Your task to perform on an android device: open a new tab in the chrome app Image 0: 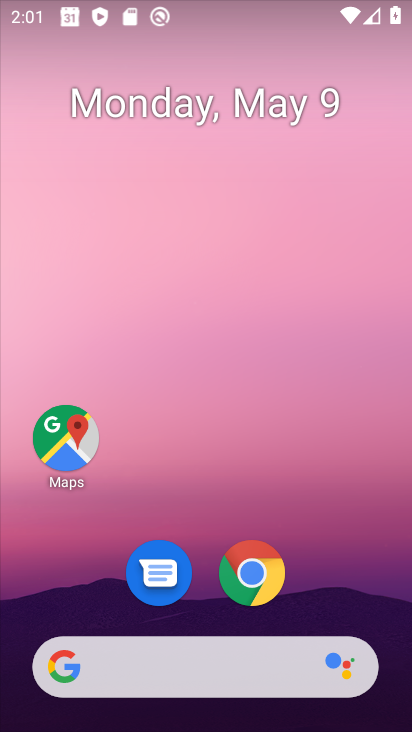
Step 0: drag from (222, 543) to (171, 203)
Your task to perform on an android device: open a new tab in the chrome app Image 1: 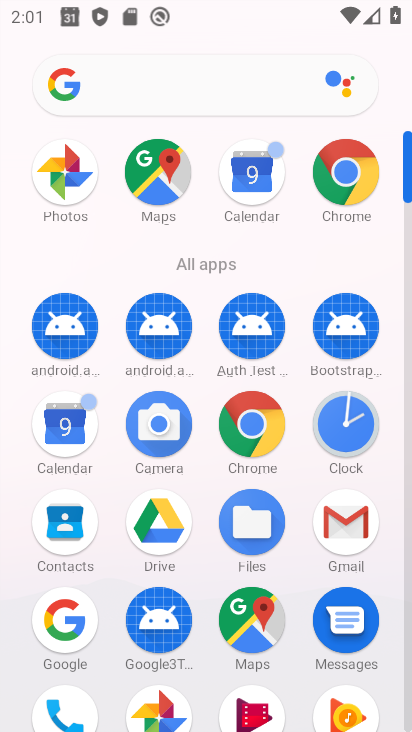
Step 1: click (350, 169)
Your task to perform on an android device: open a new tab in the chrome app Image 2: 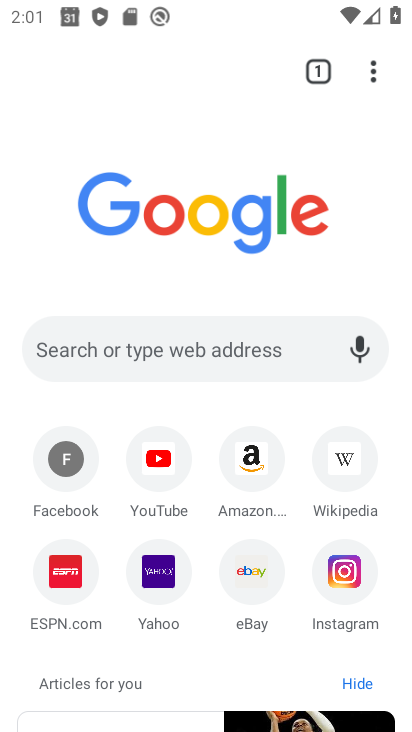
Step 2: click (372, 66)
Your task to perform on an android device: open a new tab in the chrome app Image 3: 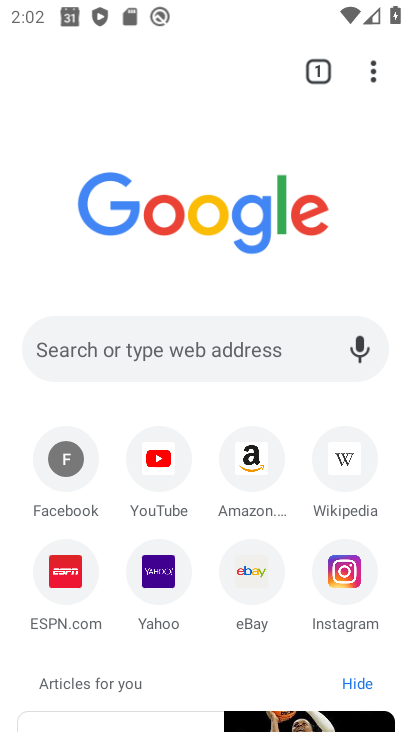
Step 3: click (375, 69)
Your task to perform on an android device: open a new tab in the chrome app Image 4: 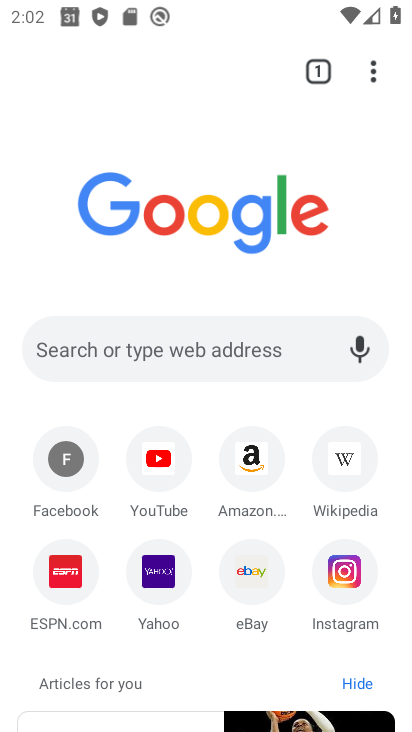
Step 4: click (368, 73)
Your task to perform on an android device: open a new tab in the chrome app Image 5: 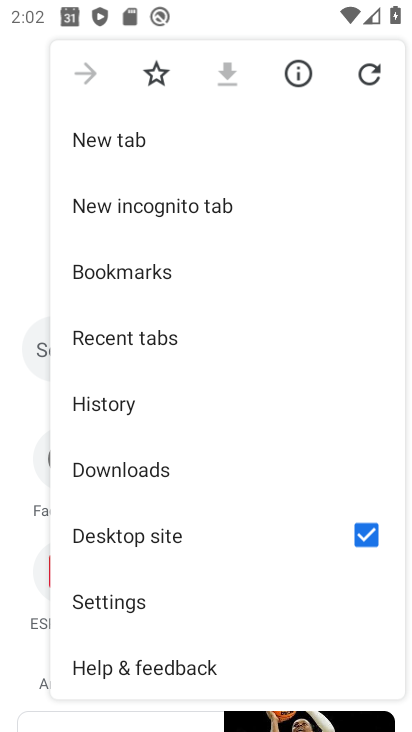
Step 5: click (118, 140)
Your task to perform on an android device: open a new tab in the chrome app Image 6: 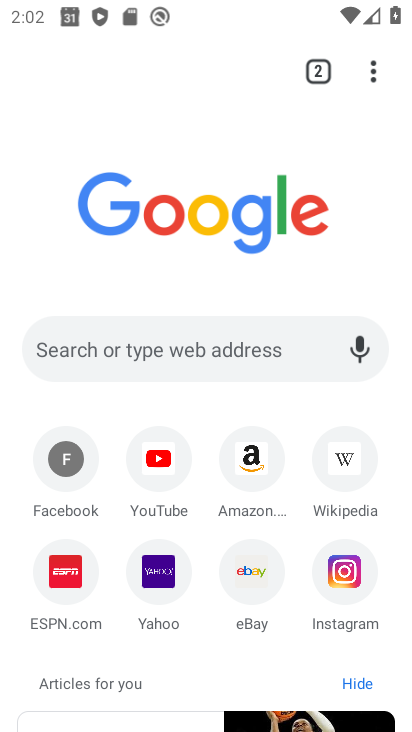
Step 6: task complete